Your task to perform on an android device: Go to accessibility settings Image 0: 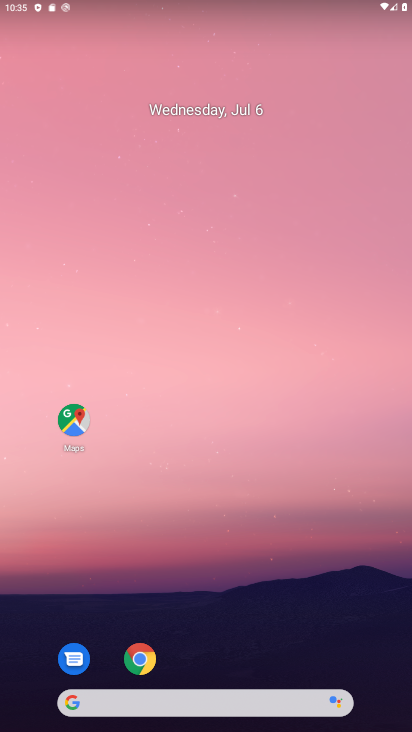
Step 0: drag from (249, 565) to (168, 101)
Your task to perform on an android device: Go to accessibility settings Image 1: 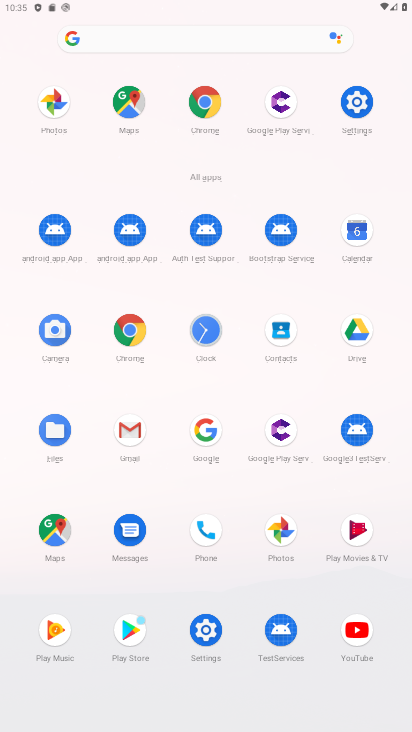
Step 1: click (354, 101)
Your task to perform on an android device: Go to accessibility settings Image 2: 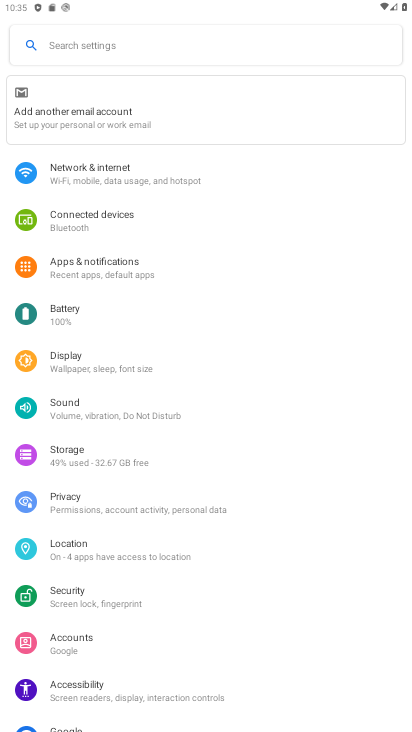
Step 2: click (79, 680)
Your task to perform on an android device: Go to accessibility settings Image 3: 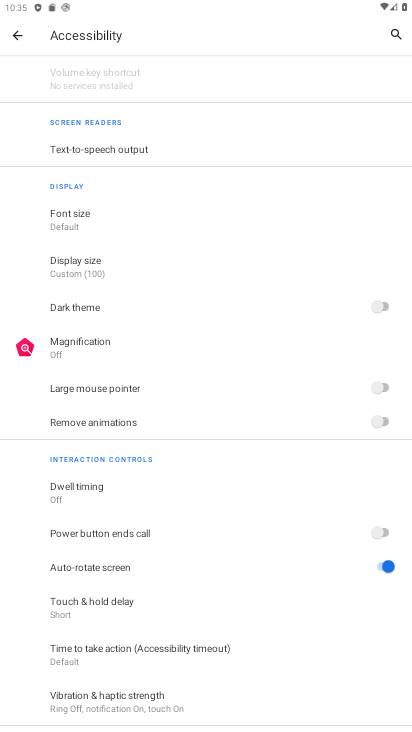
Step 3: task complete